Your task to perform on an android device: Open CNN.com Image 0: 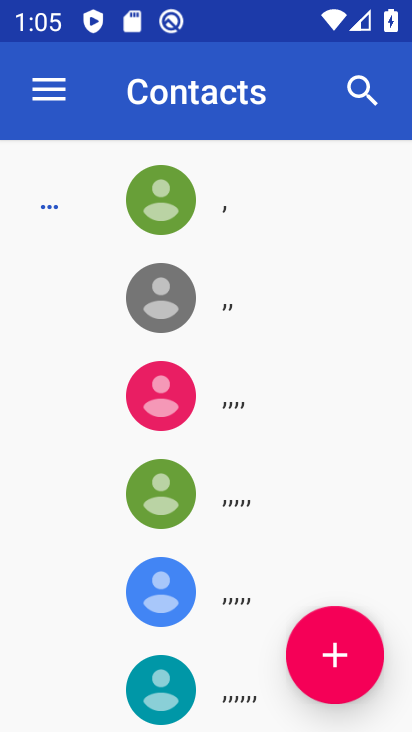
Step 0: press back button
Your task to perform on an android device: Open CNN.com Image 1: 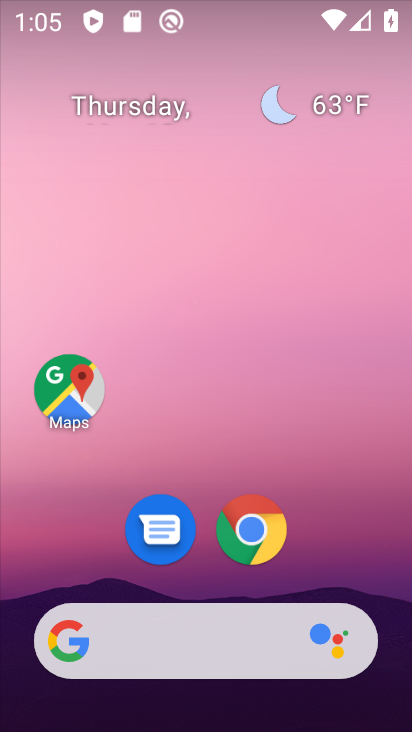
Step 1: click (249, 531)
Your task to perform on an android device: Open CNN.com Image 2: 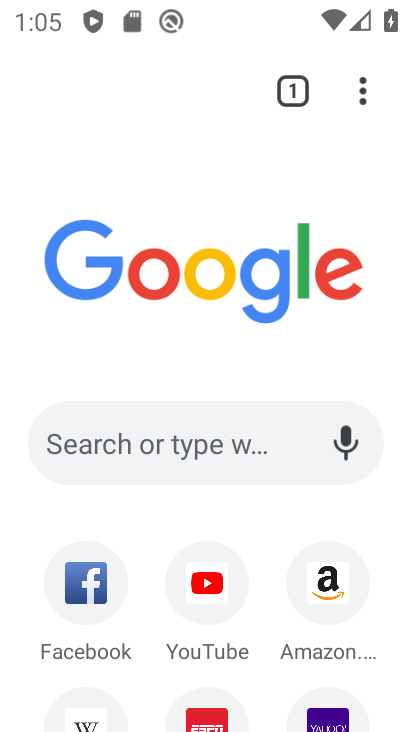
Step 2: click (190, 446)
Your task to perform on an android device: Open CNN.com Image 3: 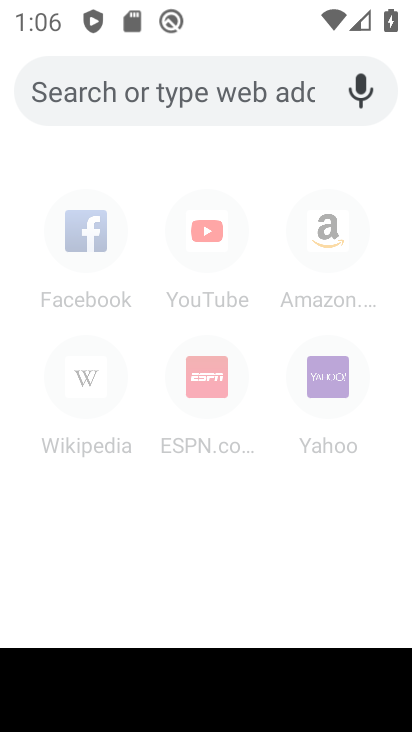
Step 3: type "CNN.com"
Your task to perform on an android device: Open CNN.com Image 4: 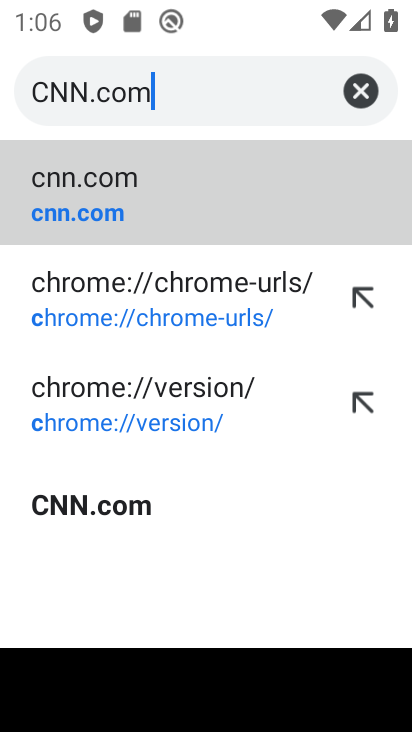
Step 4: type ""
Your task to perform on an android device: Open CNN.com Image 5: 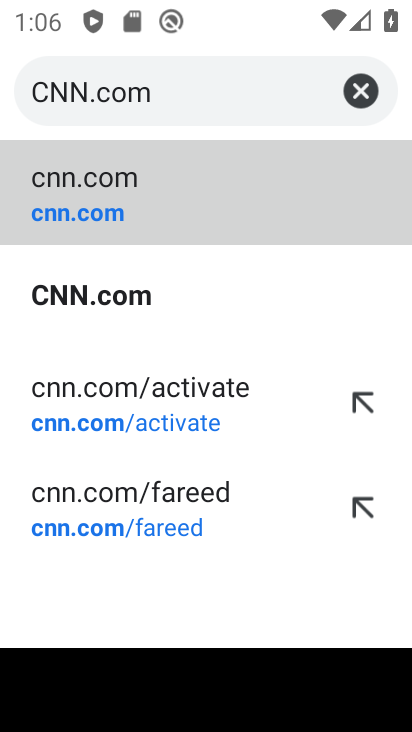
Step 5: click (67, 295)
Your task to perform on an android device: Open CNN.com Image 6: 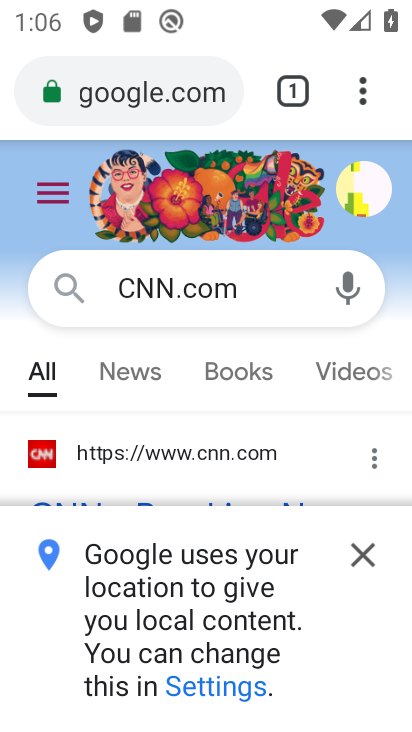
Step 6: click (370, 550)
Your task to perform on an android device: Open CNN.com Image 7: 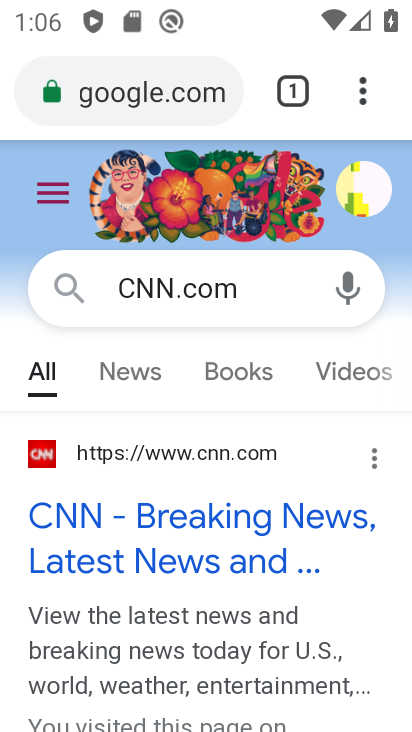
Step 7: click (196, 521)
Your task to perform on an android device: Open CNN.com Image 8: 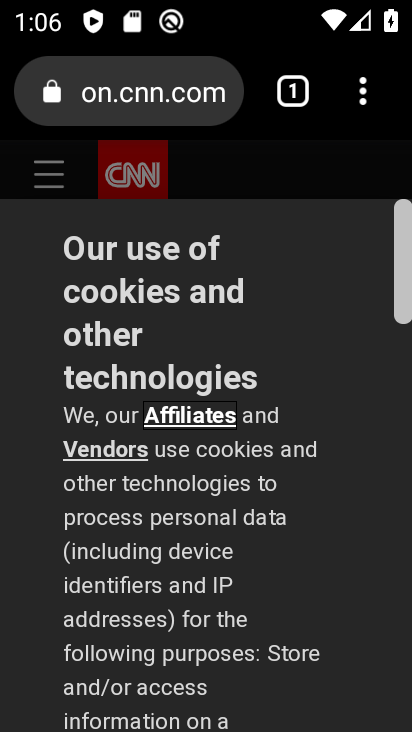
Step 8: task complete